Your task to perform on an android device: When is my next meeting? Image 0: 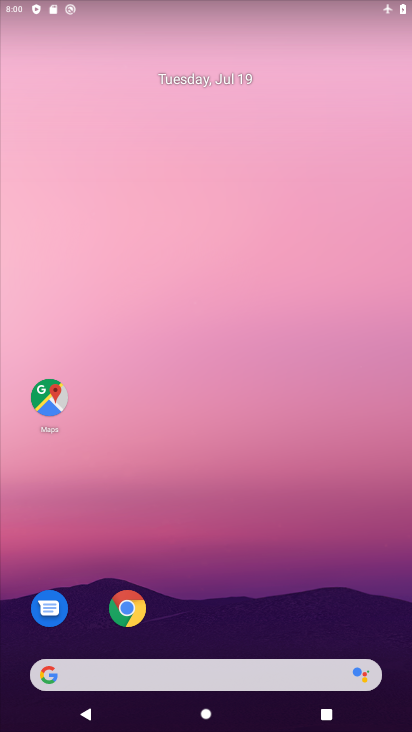
Step 0: drag from (212, 659) to (195, 108)
Your task to perform on an android device: When is my next meeting? Image 1: 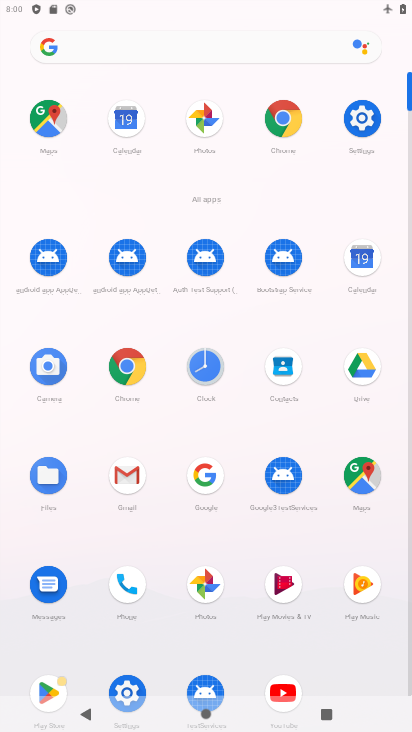
Step 1: click (352, 269)
Your task to perform on an android device: When is my next meeting? Image 2: 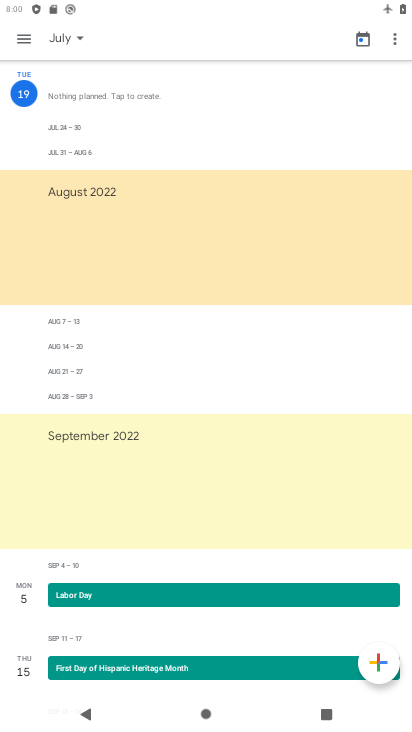
Step 2: task complete